Your task to perform on an android device: What time is it in Berlin? Image 0: 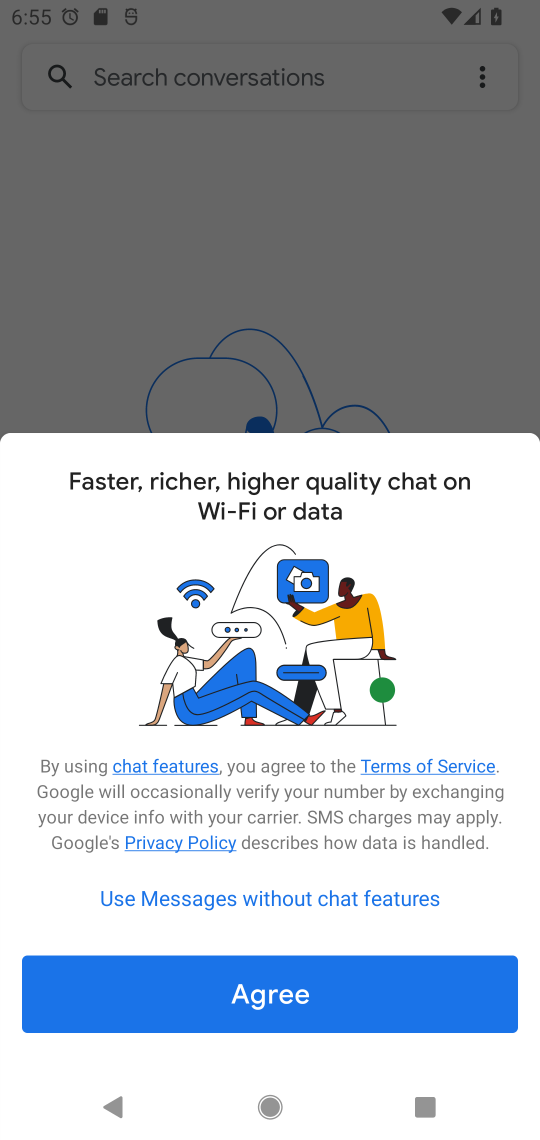
Step 0: press home button
Your task to perform on an android device: What time is it in Berlin? Image 1: 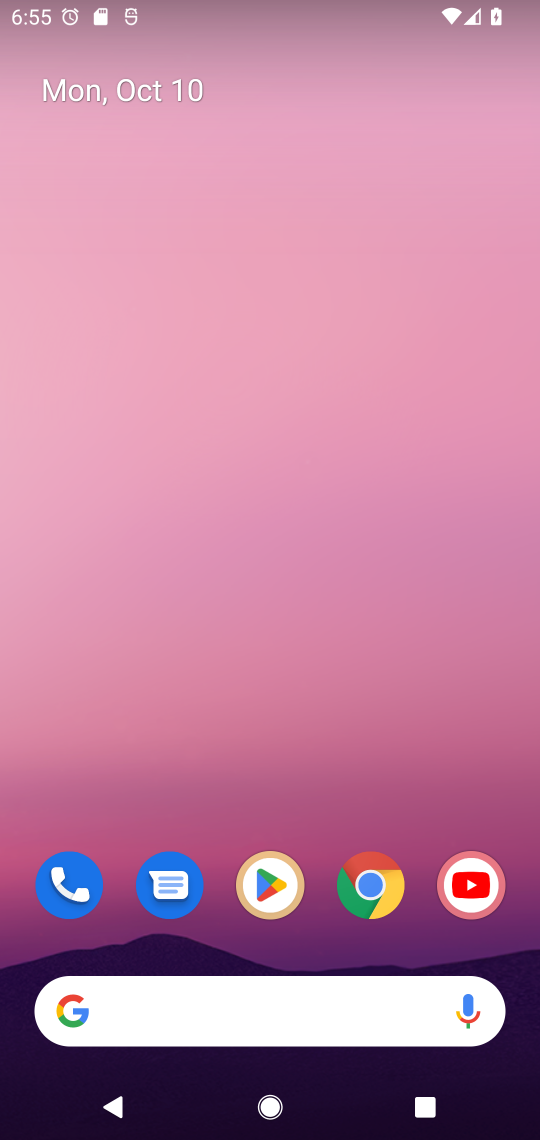
Step 1: click (359, 885)
Your task to perform on an android device: What time is it in Berlin? Image 2: 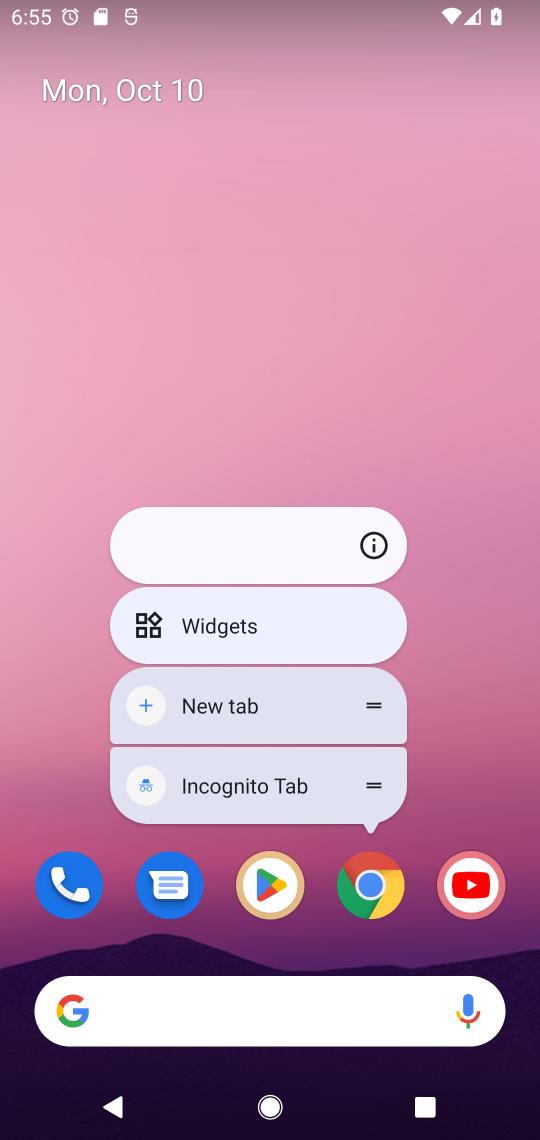
Step 2: click (366, 900)
Your task to perform on an android device: What time is it in Berlin? Image 3: 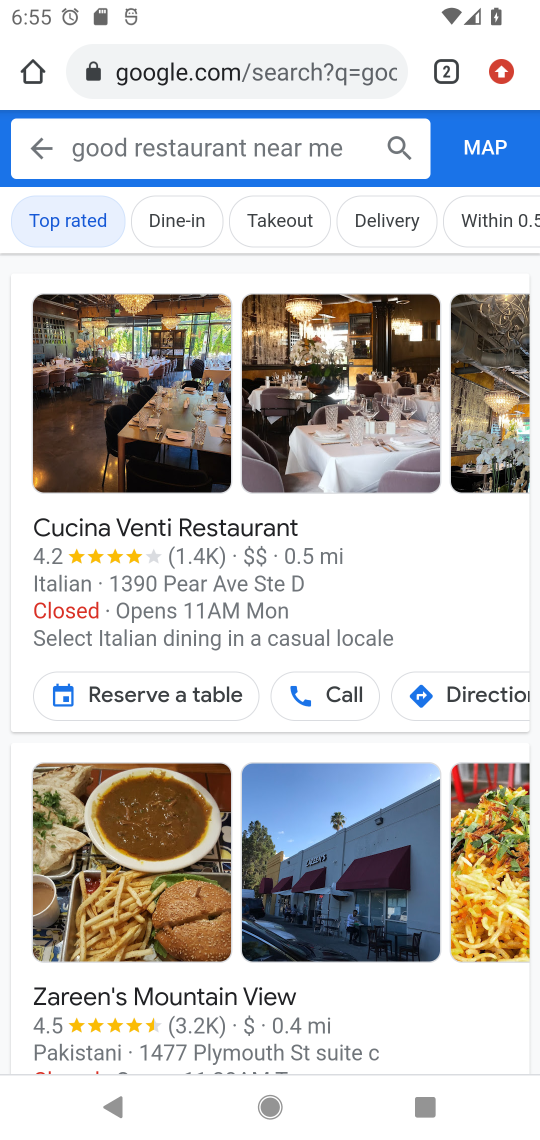
Step 3: click (232, 73)
Your task to perform on an android device: What time is it in Berlin? Image 4: 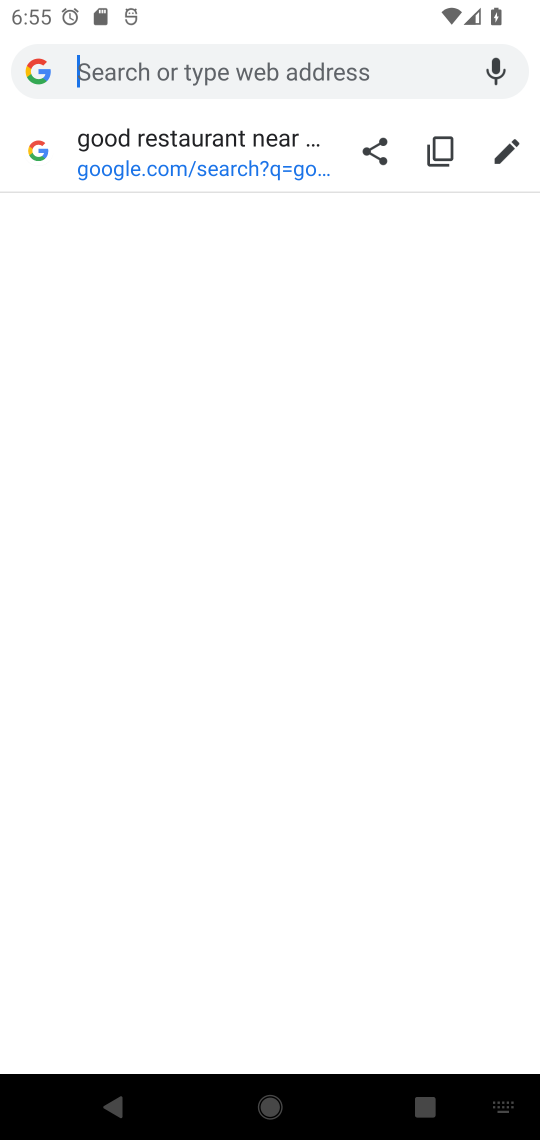
Step 4: type "time in Berlin"
Your task to perform on an android device: What time is it in Berlin? Image 5: 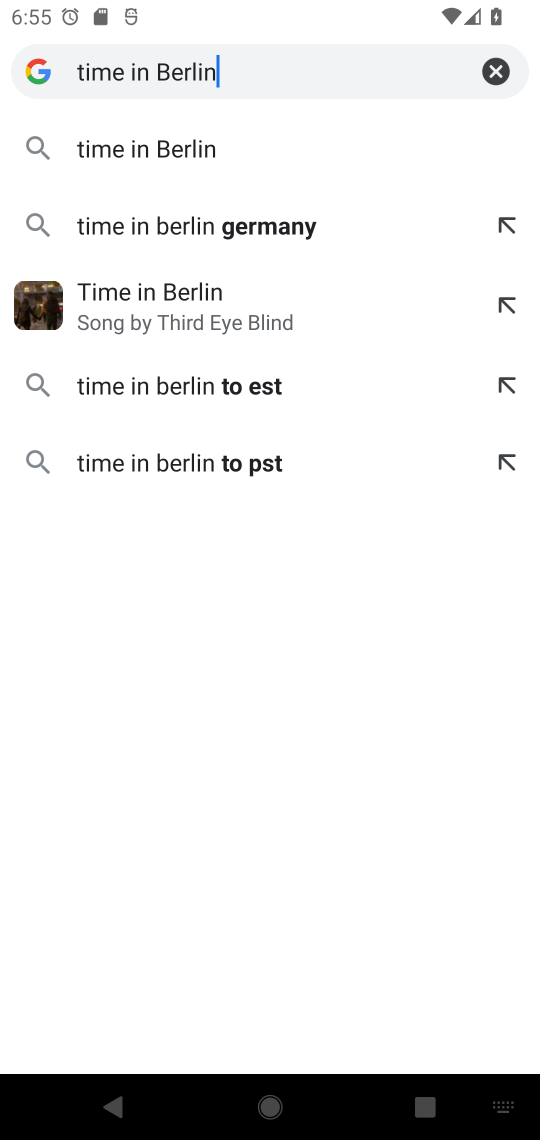
Step 5: click (95, 148)
Your task to perform on an android device: What time is it in Berlin? Image 6: 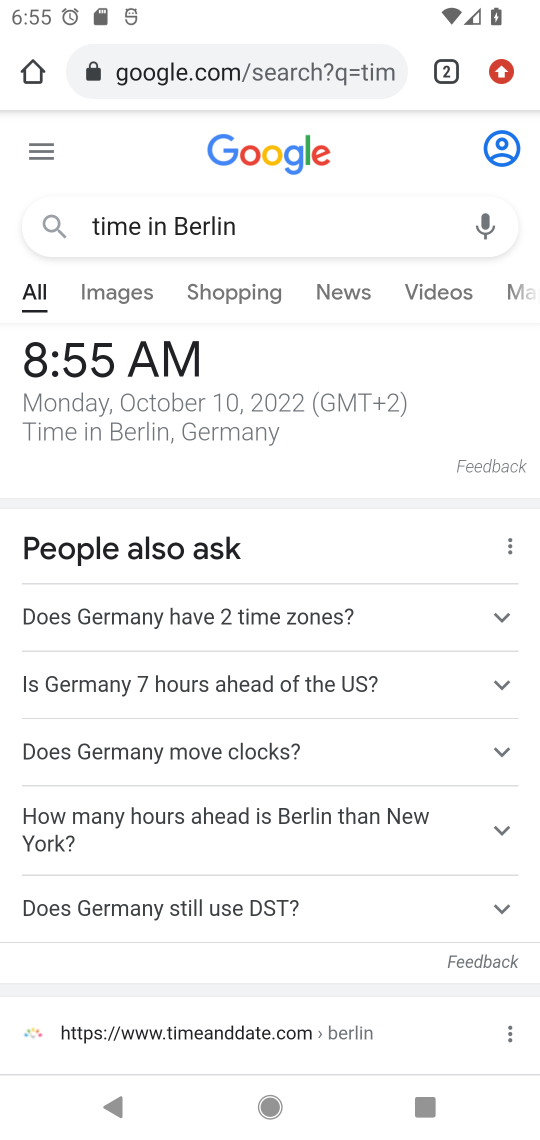
Step 6: task complete